Your task to perform on an android device: turn off priority inbox in the gmail app Image 0: 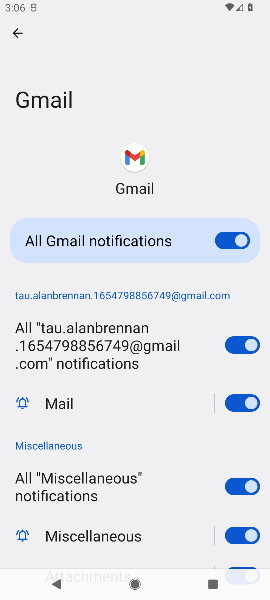
Step 0: click (15, 27)
Your task to perform on an android device: turn off priority inbox in the gmail app Image 1: 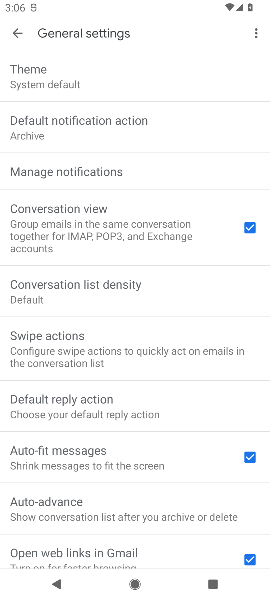
Step 1: click (15, 27)
Your task to perform on an android device: turn off priority inbox in the gmail app Image 2: 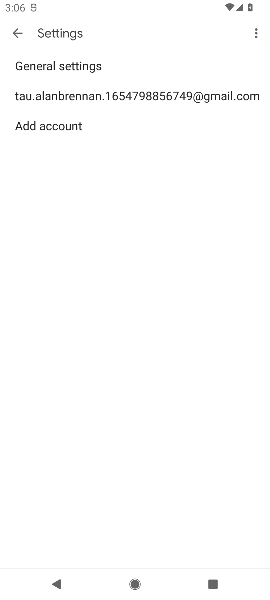
Step 2: click (32, 88)
Your task to perform on an android device: turn off priority inbox in the gmail app Image 3: 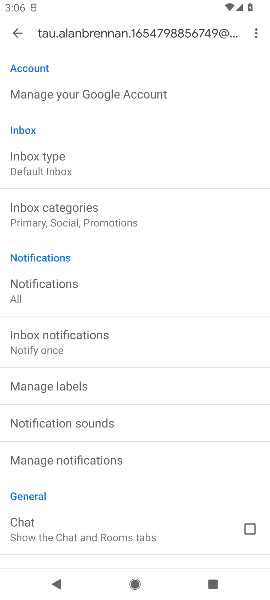
Step 3: click (32, 155)
Your task to perform on an android device: turn off priority inbox in the gmail app Image 4: 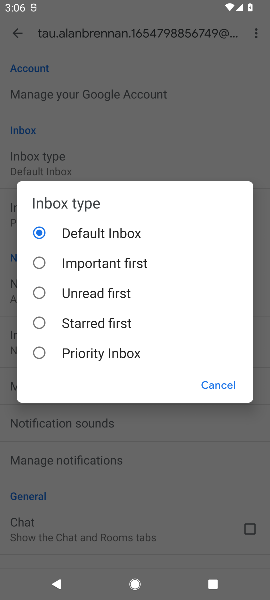
Step 4: task complete